Your task to perform on an android device: See recent photos Image 0: 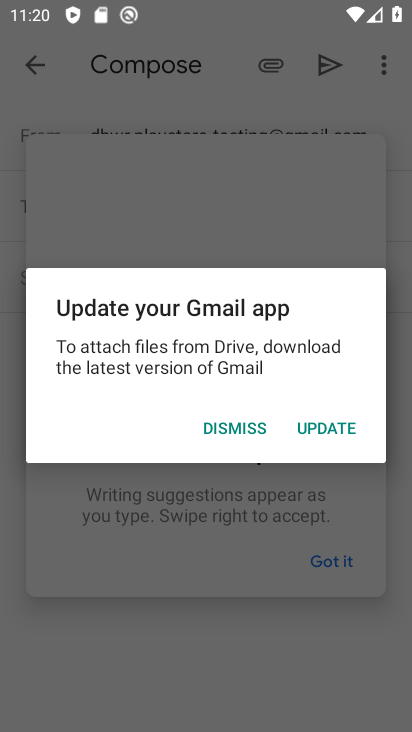
Step 0: press home button
Your task to perform on an android device: See recent photos Image 1: 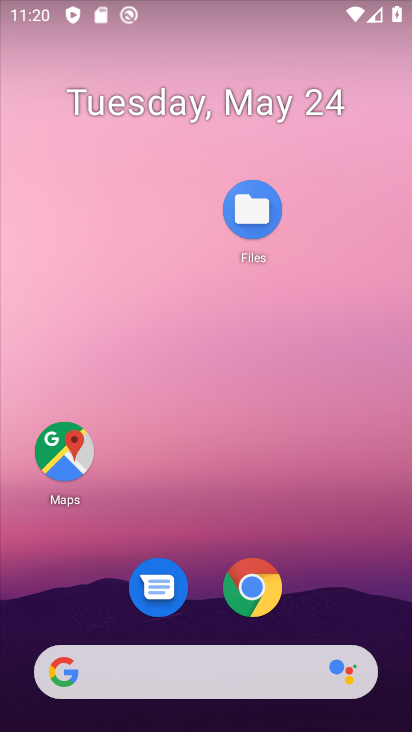
Step 1: drag from (328, 607) to (285, 206)
Your task to perform on an android device: See recent photos Image 2: 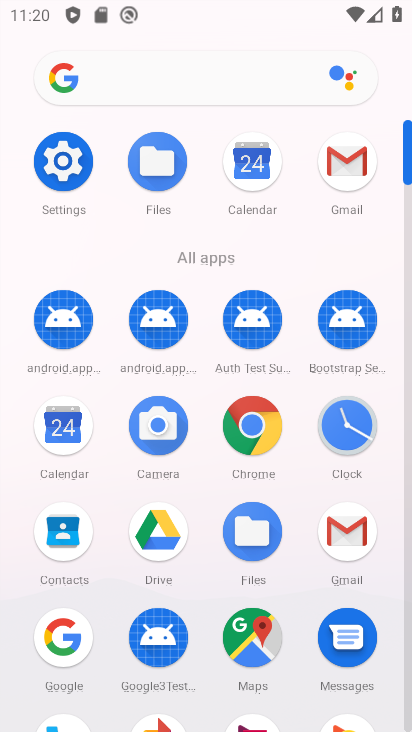
Step 2: drag from (194, 705) to (187, 332)
Your task to perform on an android device: See recent photos Image 3: 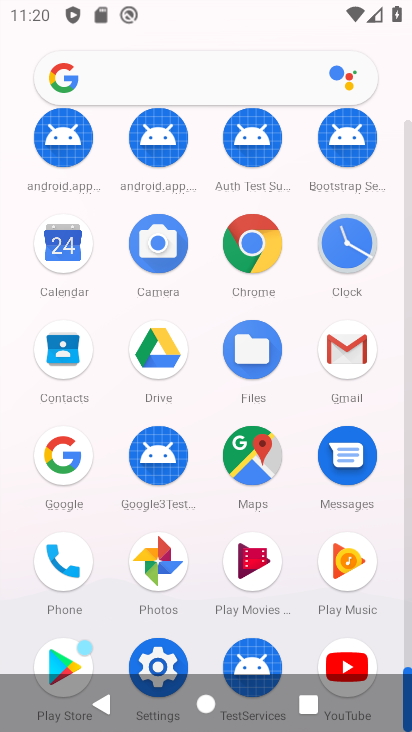
Step 3: click (166, 562)
Your task to perform on an android device: See recent photos Image 4: 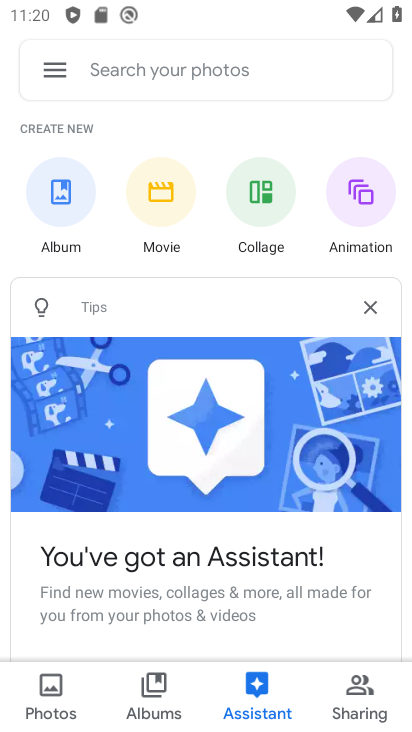
Step 4: click (58, 700)
Your task to perform on an android device: See recent photos Image 5: 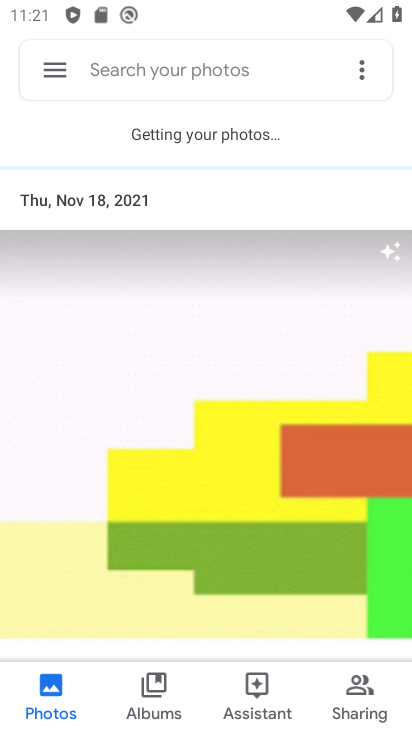
Step 5: drag from (157, 585) to (140, 107)
Your task to perform on an android device: See recent photos Image 6: 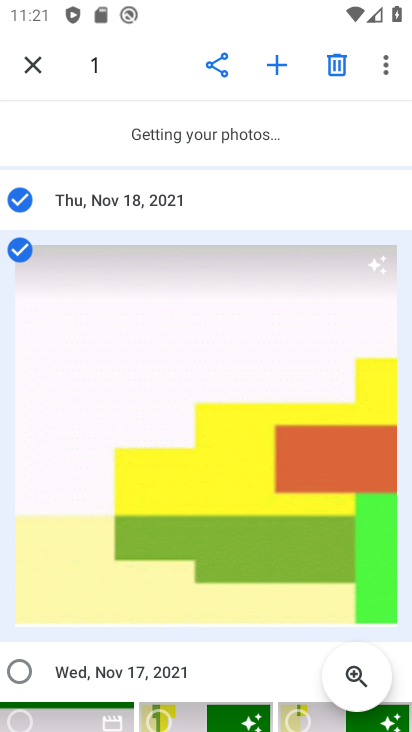
Step 6: click (149, 681)
Your task to perform on an android device: See recent photos Image 7: 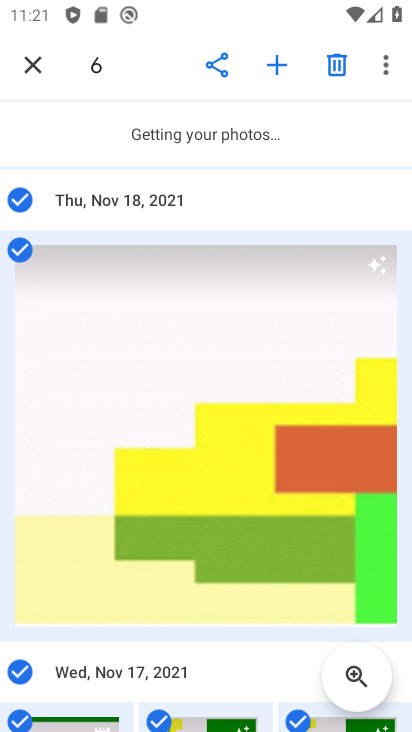
Step 7: drag from (148, 680) to (182, 238)
Your task to perform on an android device: See recent photos Image 8: 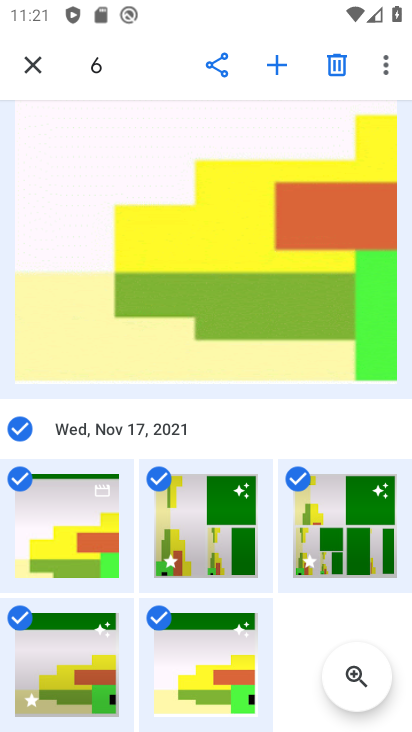
Step 8: click (22, 437)
Your task to perform on an android device: See recent photos Image 9: 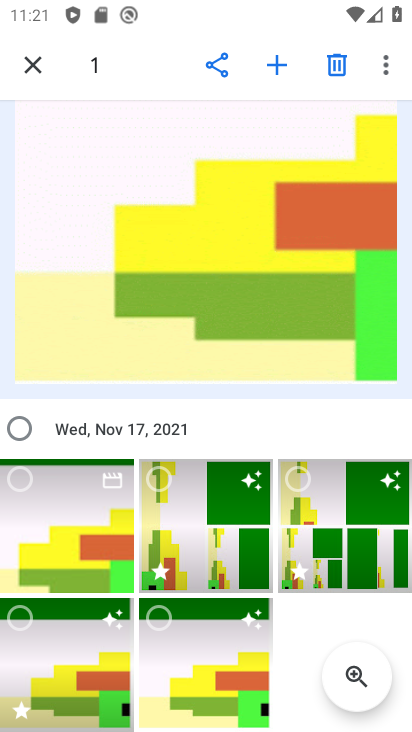
Step 9: task complete